Your task to perform on an android device: empty trash in the gmail app Image 0: 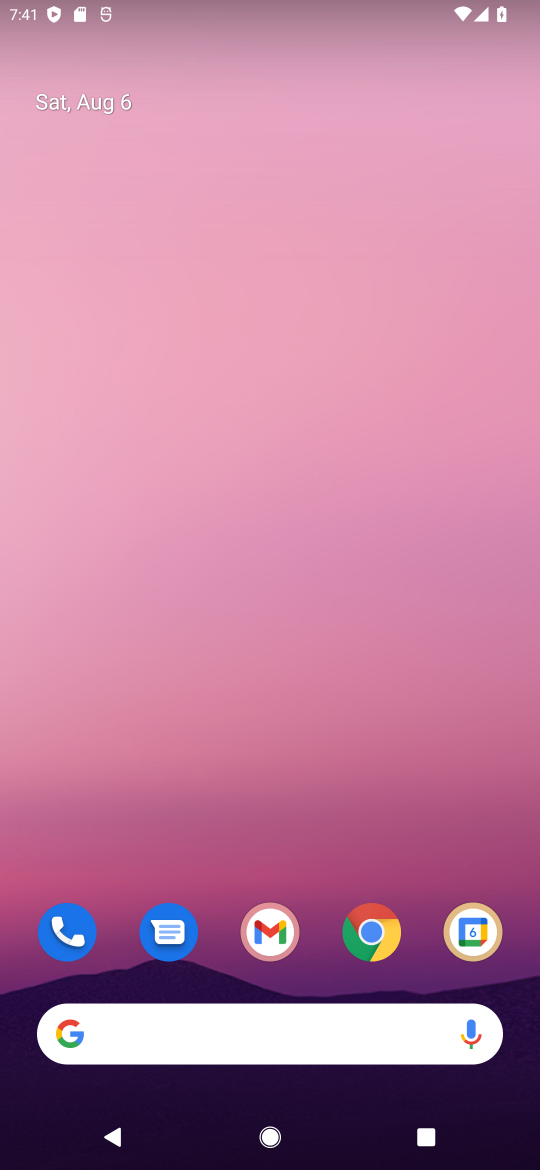
Step 0: click (275, 935)
Your task to perform on an android device: empty trash in the gmail app Image 1: 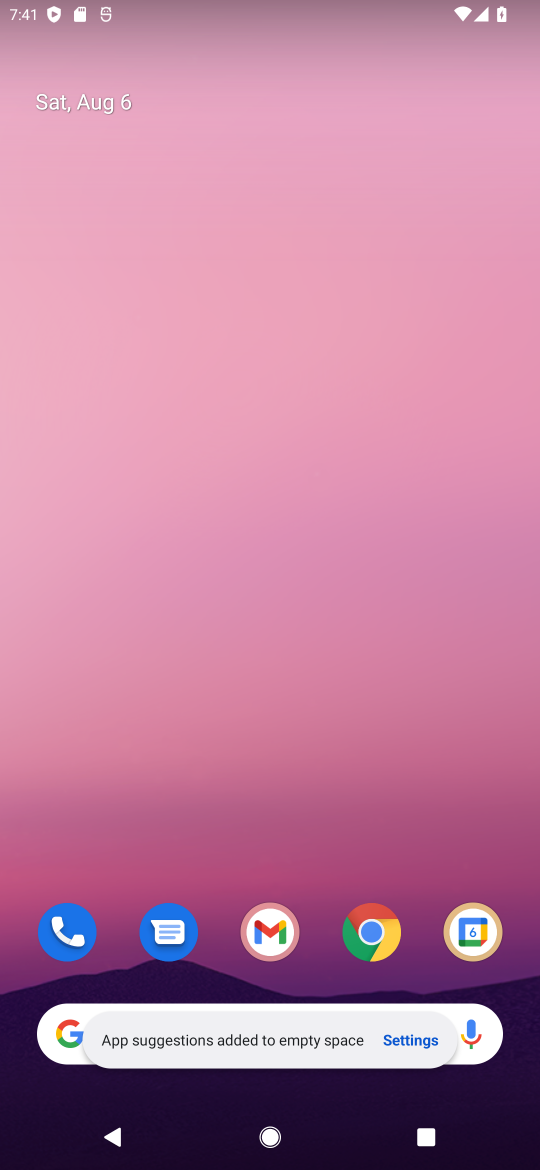
Step 1: click (275, 931)
Your task to perform on an android device: empty trash in the gmail app Image 2: 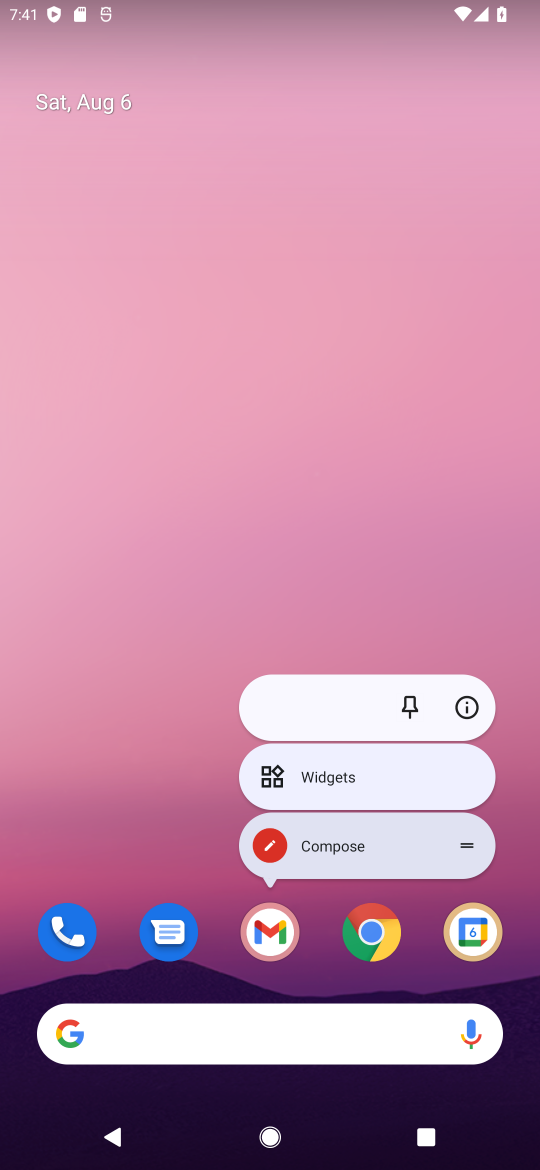
Step 2: click (268, 925)
Your task to perform on an android device: empty trash in the gmail app Image 3: 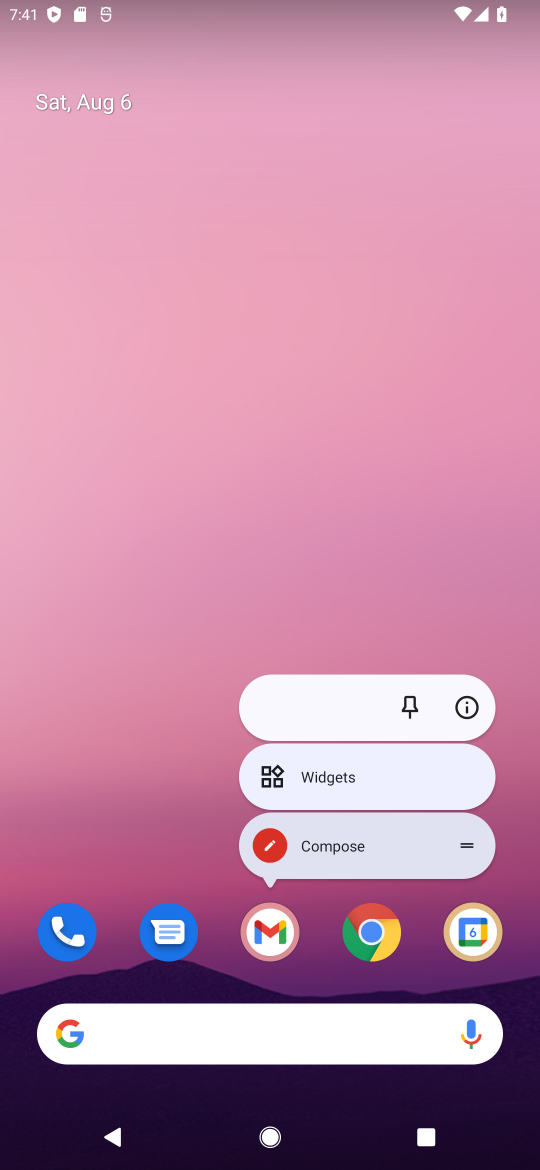
Step 3: click (268, 937)
Your task to perform on an android device: empty trash in the gmail app Image 4: 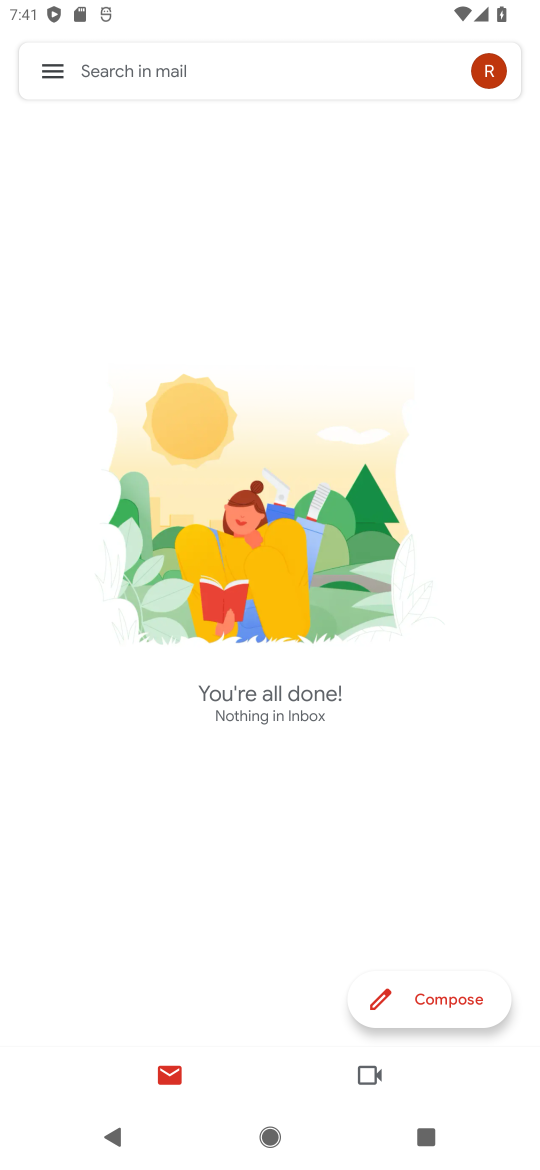
Step 4: click (51, 77)
Your task to perform on an android device: empty trash in the gmail app Image 5: 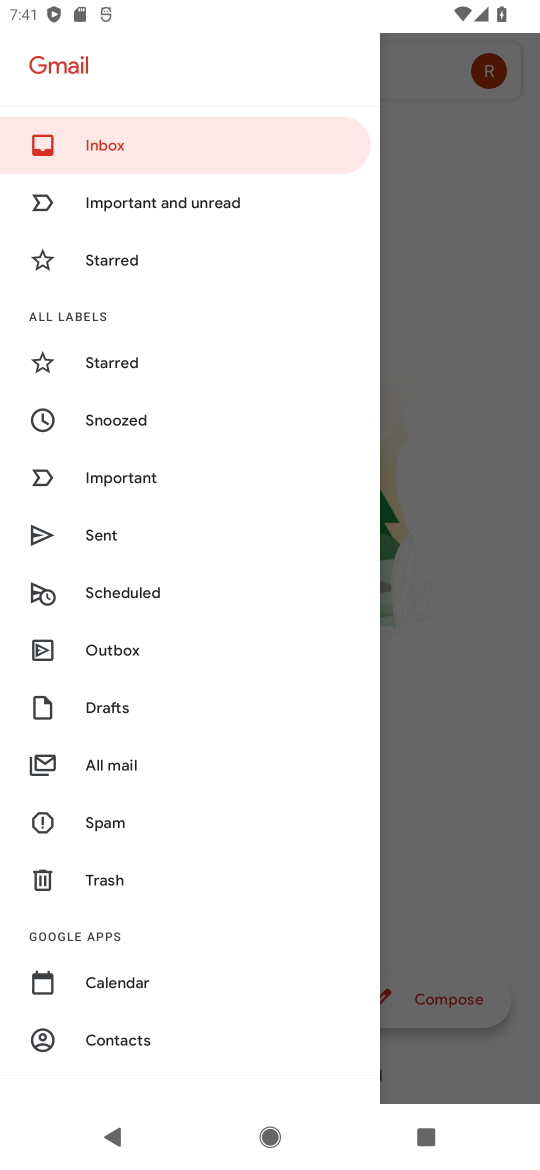
Step 5: click (94, 875)
Your task to perform on an android device: empty trash in the gmail app Image 6: 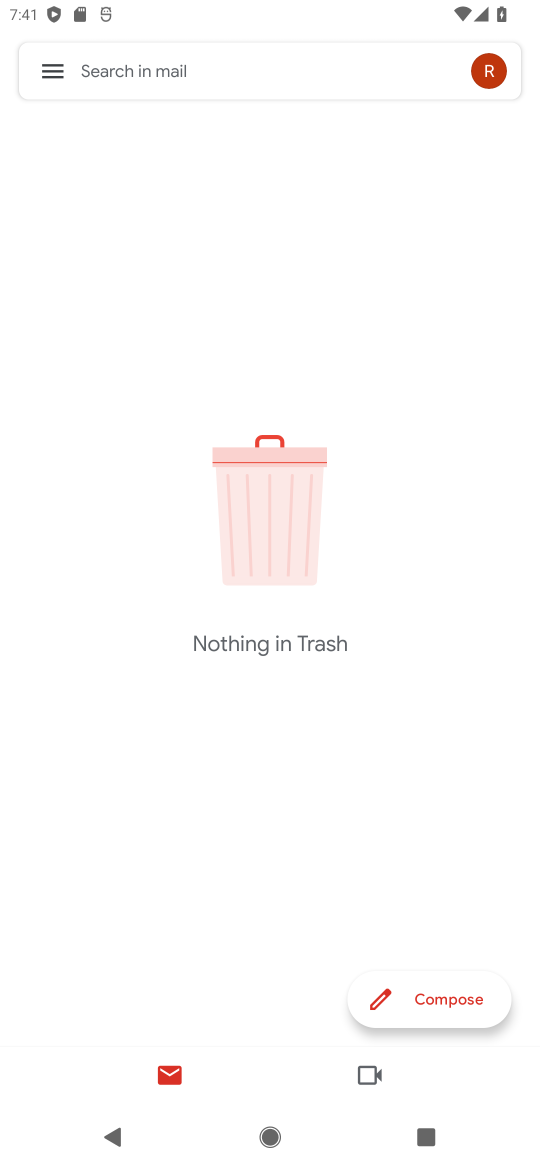
Step 6: task complete